Your task to perform on an android device: open app "Flipkart Online Shopping App" (install if not already installed), go to login, and select forgot password Image 0: 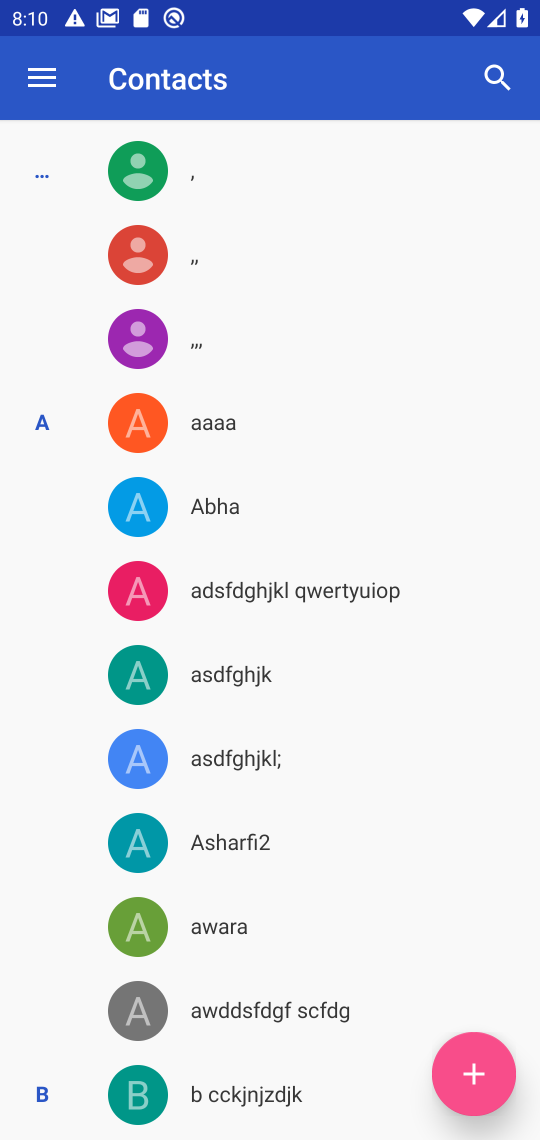
Step 0: press home button
Your task to perform on an android device: open app "Flipkart Online Shopping App" (install if not already installed), go to login, and select forgot password Image 1: 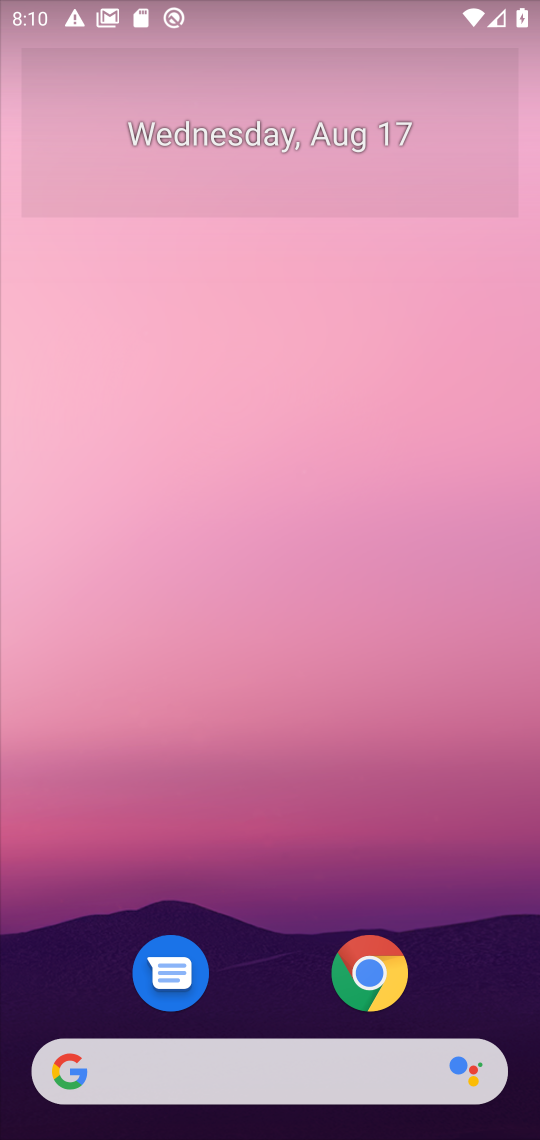
Step 1: drag from (239, 601) to (311, 14)
Your task to perform on an android device: open app "Flipkart Online Shopping App" (install if not already installed), go to login, and select forgot password Image 2: 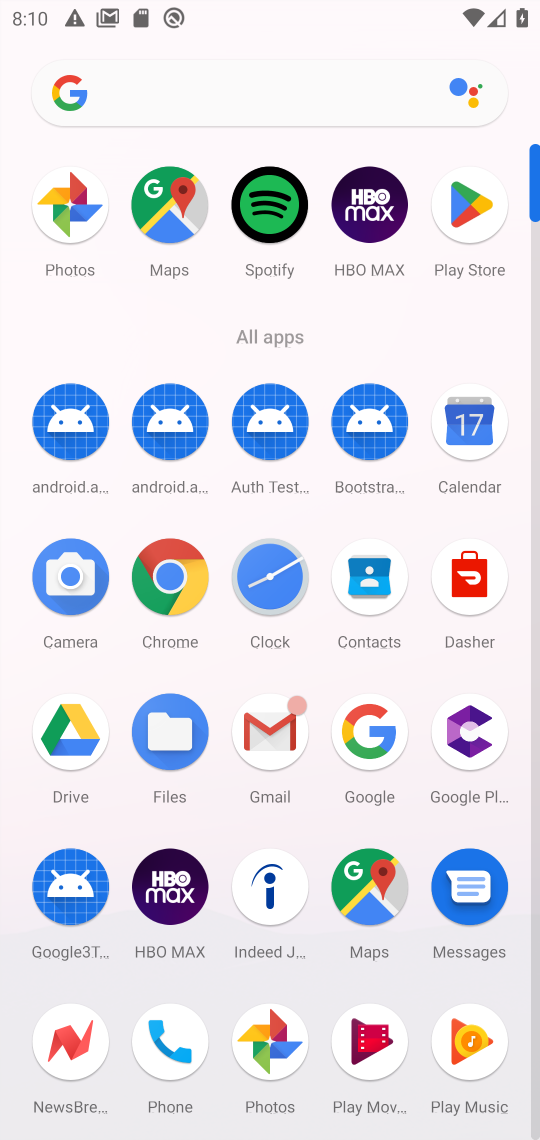
Step 2: click (483, 248)
Your task to perform on an android device: open app "Flipkart Online Shopping App" (install if not already installed), go to login, and select forgot password Image 3: 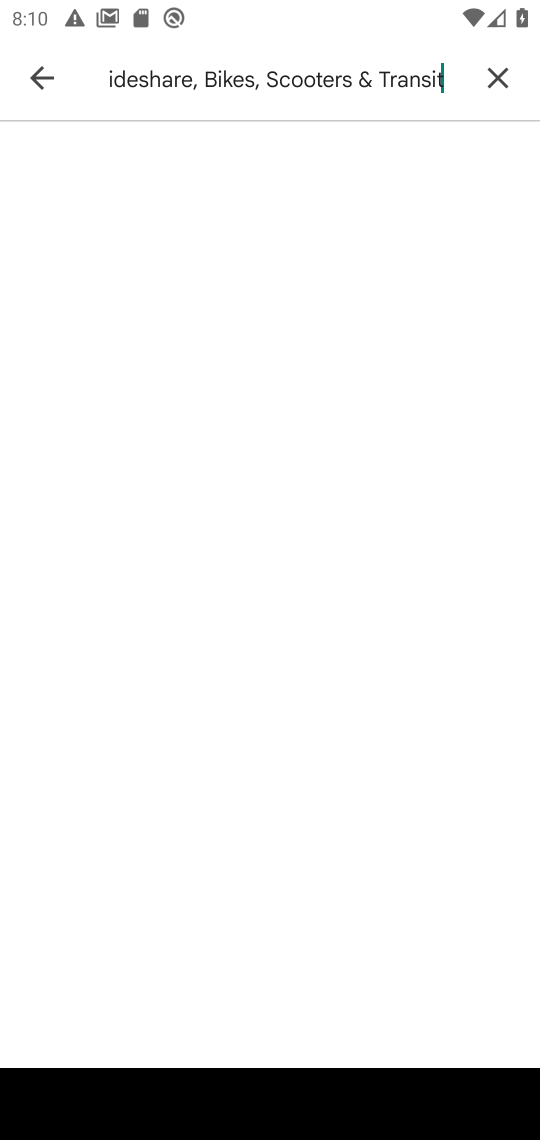
Step 3: click (511, 68)
Your task to perform on an android device: open app "Flipkart Online Shopping App" (install if not already installed), go to login, and select forgot password Image 4: 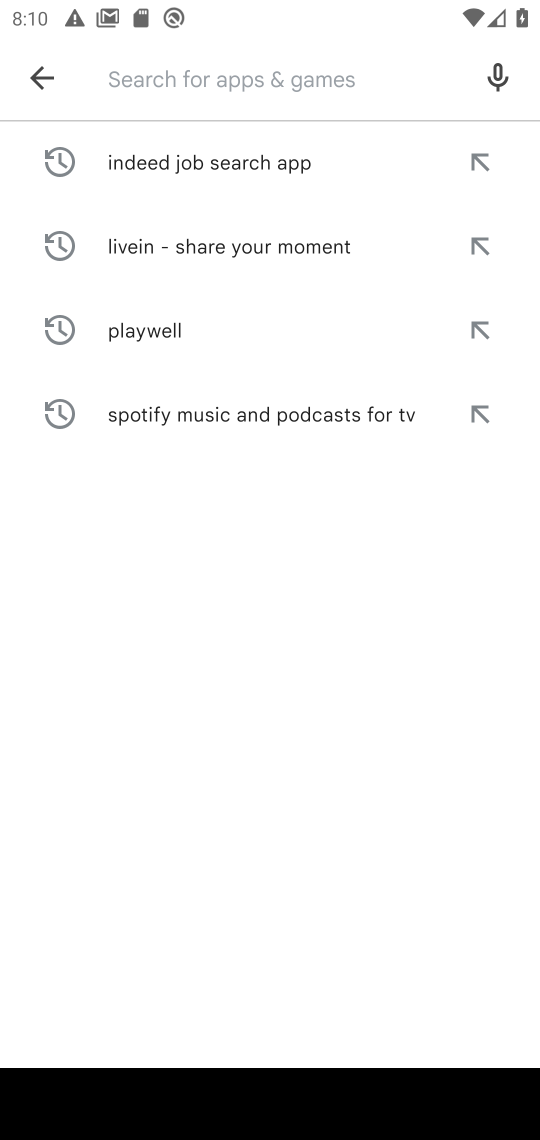
Step 4: click (46, 73)
Your task to perform on an android device: open app "Flipkart Online Shopping App" (install if not already installed), go to login, and select forgot password Image 5: 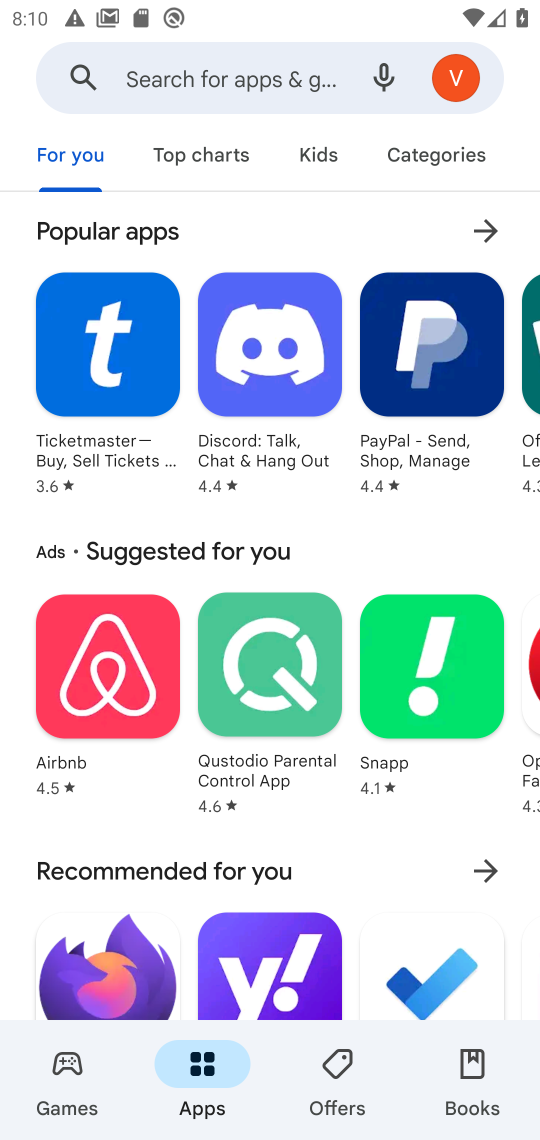
Step 5: click (154, 95)
Your task to perform on an android device: open app "Flipkart Online Shopping App" (install if not already installed), go to login, and select forgot password Image 6: 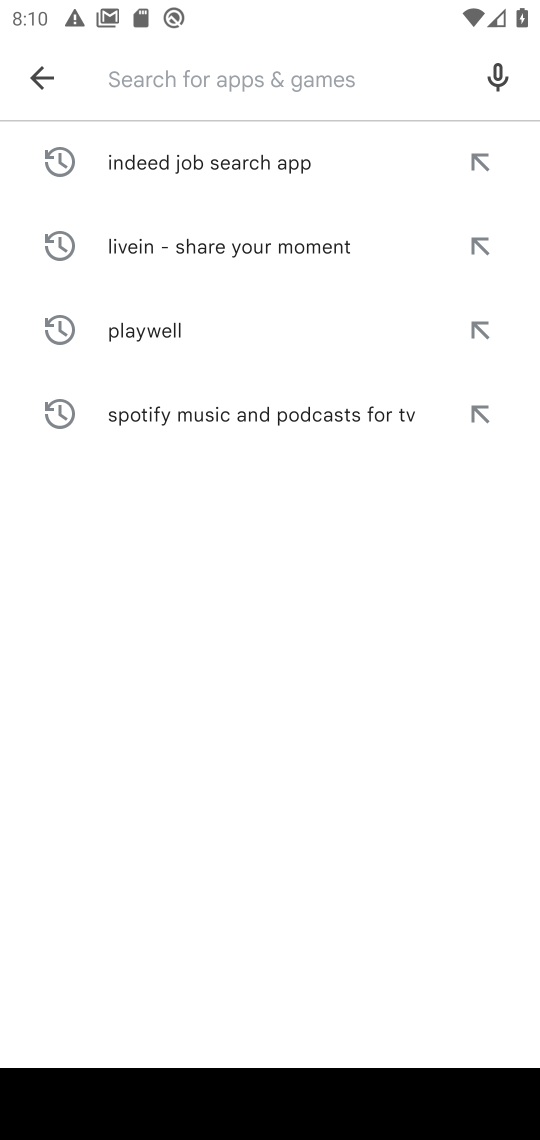
Step 6: type "Flipkart Online Shopping App"
Your task to perform on an android device: open app "Flipkart Online Shopping App" (install if not already installed), go to login, and select forgot password Image 7: 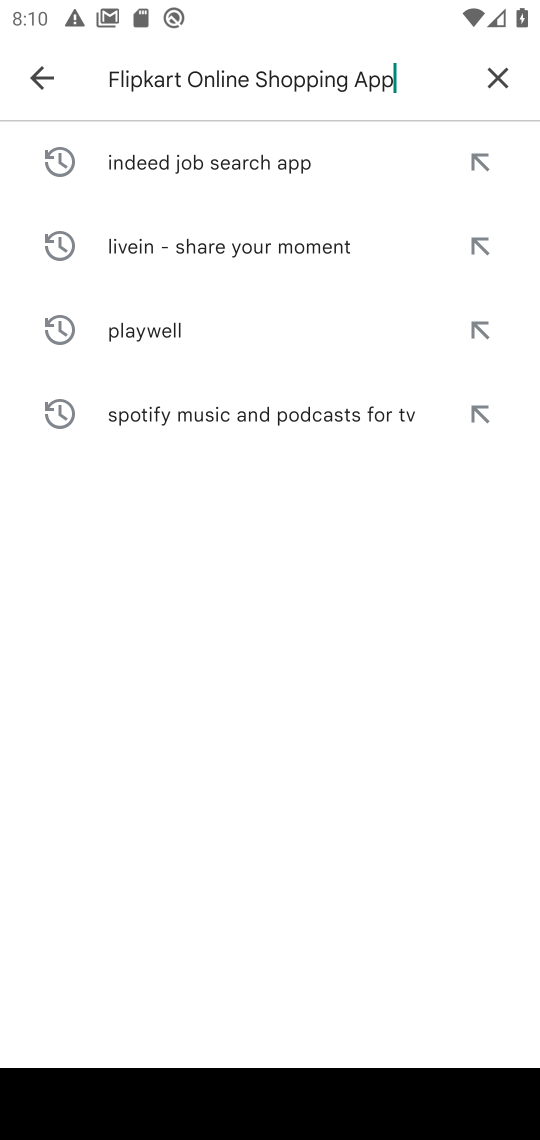
Step 7: type ""
Your task to perform on an android device: open app "Flipkart Online Shopping App" (install if not already installed), go to login, and select forgot password Image 8: 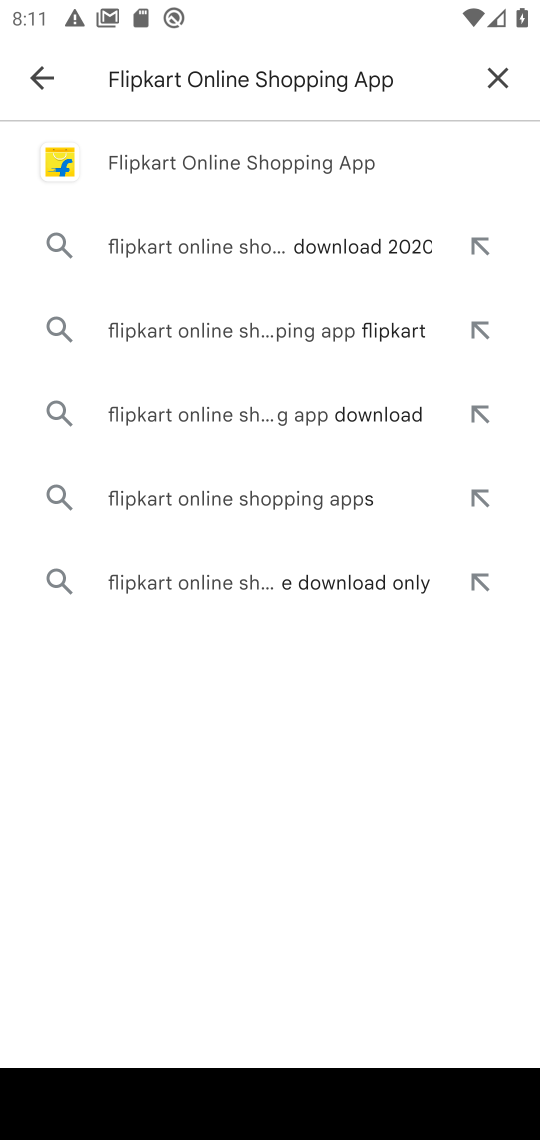
Step 8: click (96, 156)
Your task to perform on an android device: open app "Flipkart Online Shopping App" (install if not already installed), go to login, and select forgot password Image 9: 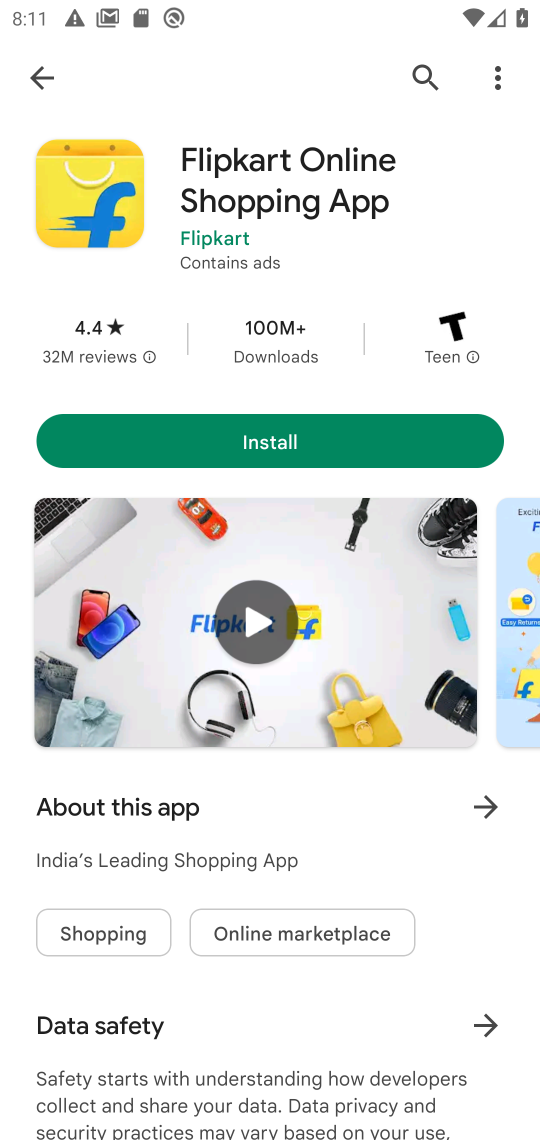
Step 9: click (400, 444)
Your task to perform on an android device: open app "Flipkart Online Shopping App" (install if not already installed), go to login, and select forgot password Image 10: 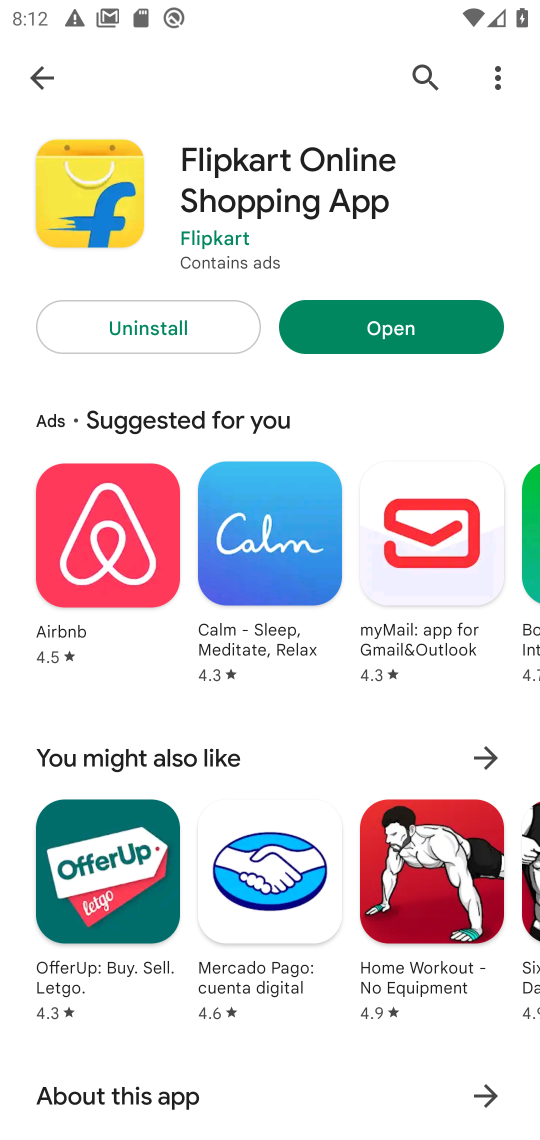
Step 10: click (391, 322)
Your task to perform on an android device: open app "Flipkart Online Shopping App" (install if not already installed), go to login, and select forgot password Image 11: 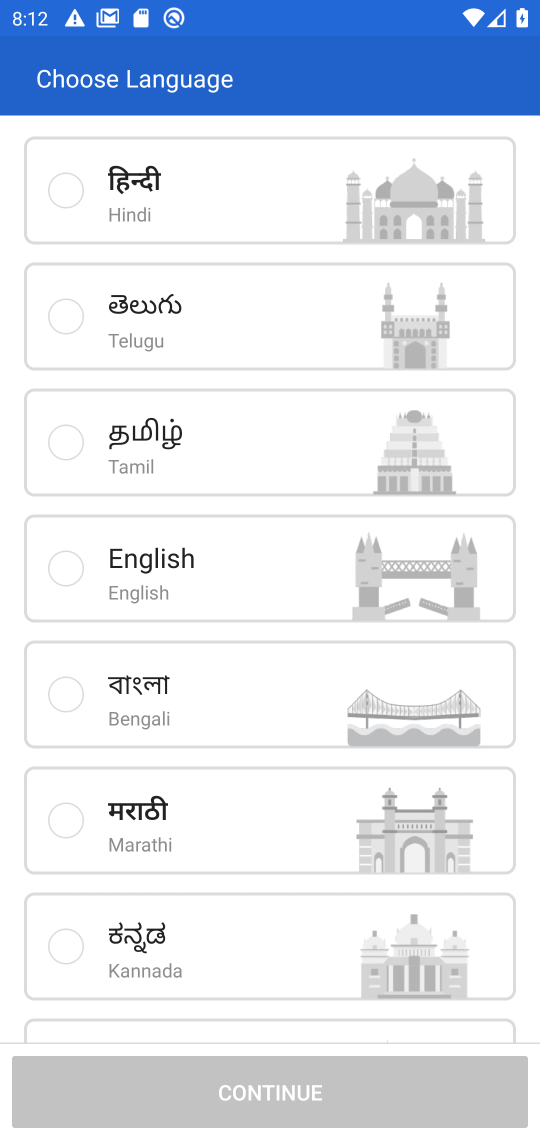
Step 11: click (105, 587)
Your task to perform on an android device: open app "Flipkart Online Shopping App" (install if not already installed), go to login, and select forgot password Image 12: 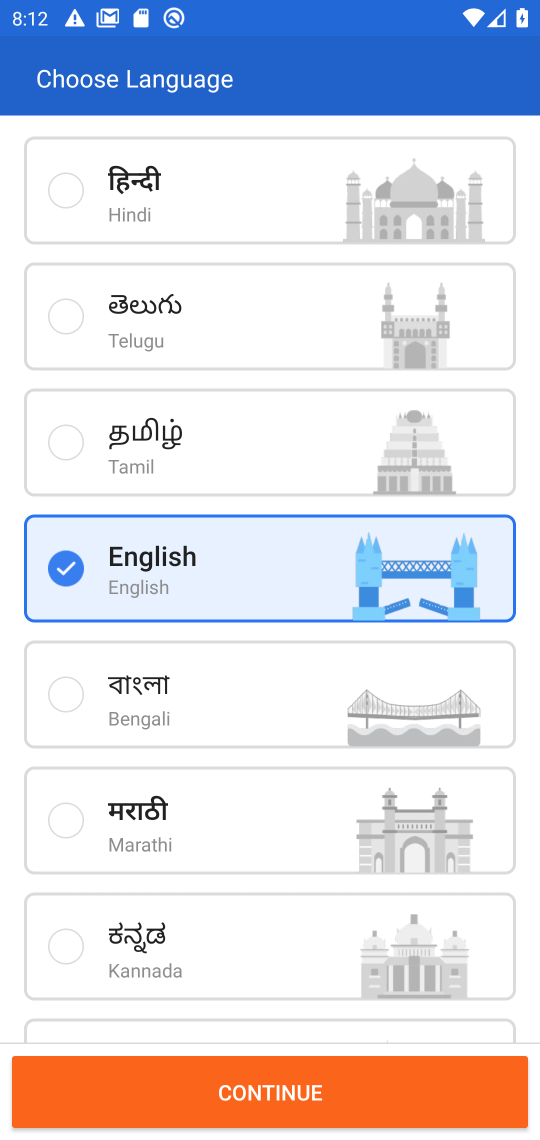
Step 12: click (259, 1066)
Your task to perform on an android device: open app "Flipkart Online Shopping App" (install if not already installed), go to login, and select forgot password Image 13: 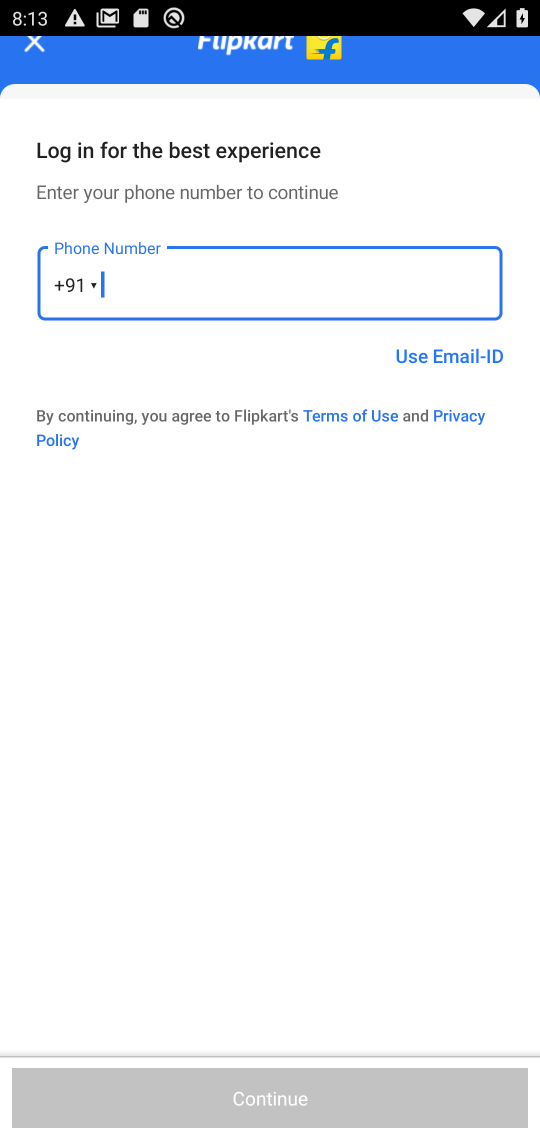
Step 13: task complete